Your task to perform on an android device: turn off notifications settings in the gmail app Image 0: 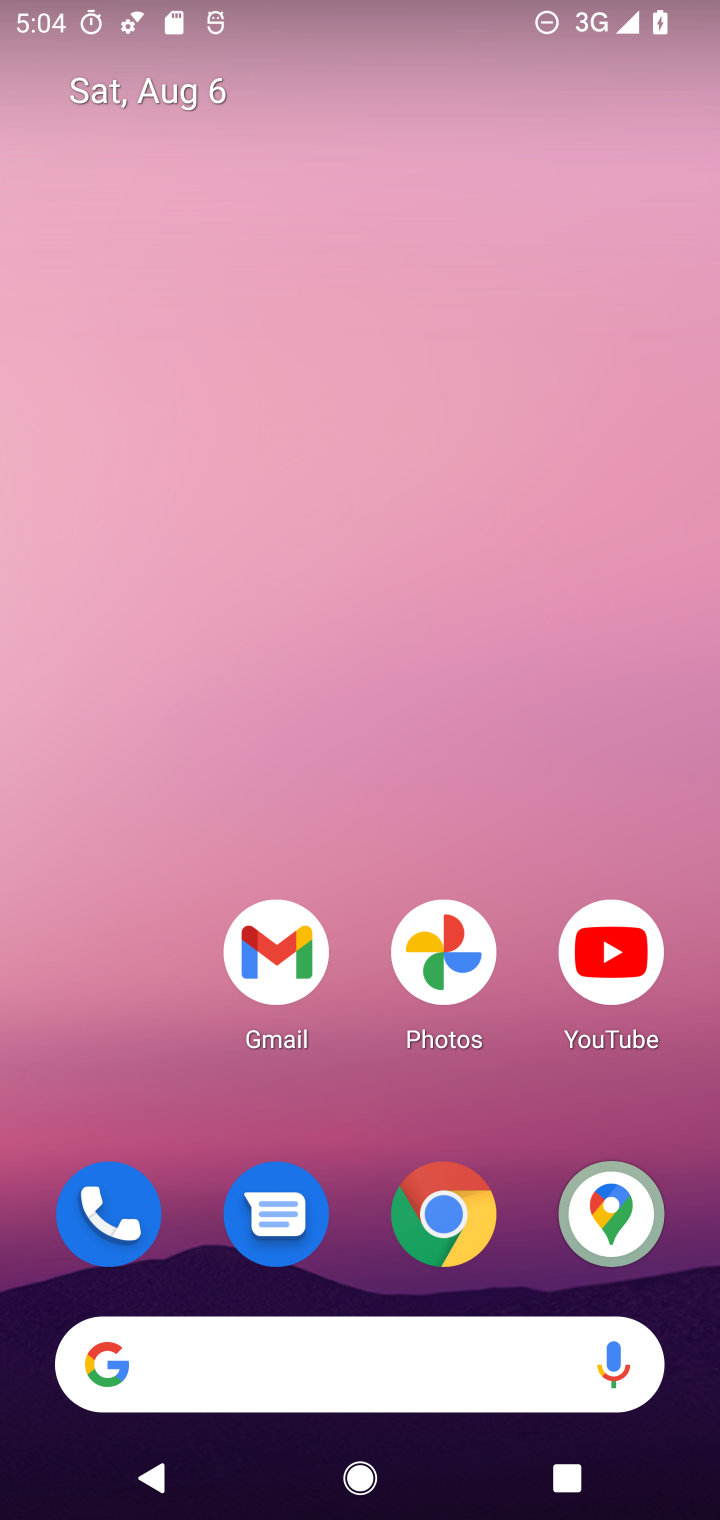
Step 0: click (249, 941)
Your task to perform on an android device: turn off notifications settings in the gmail app Image 1: 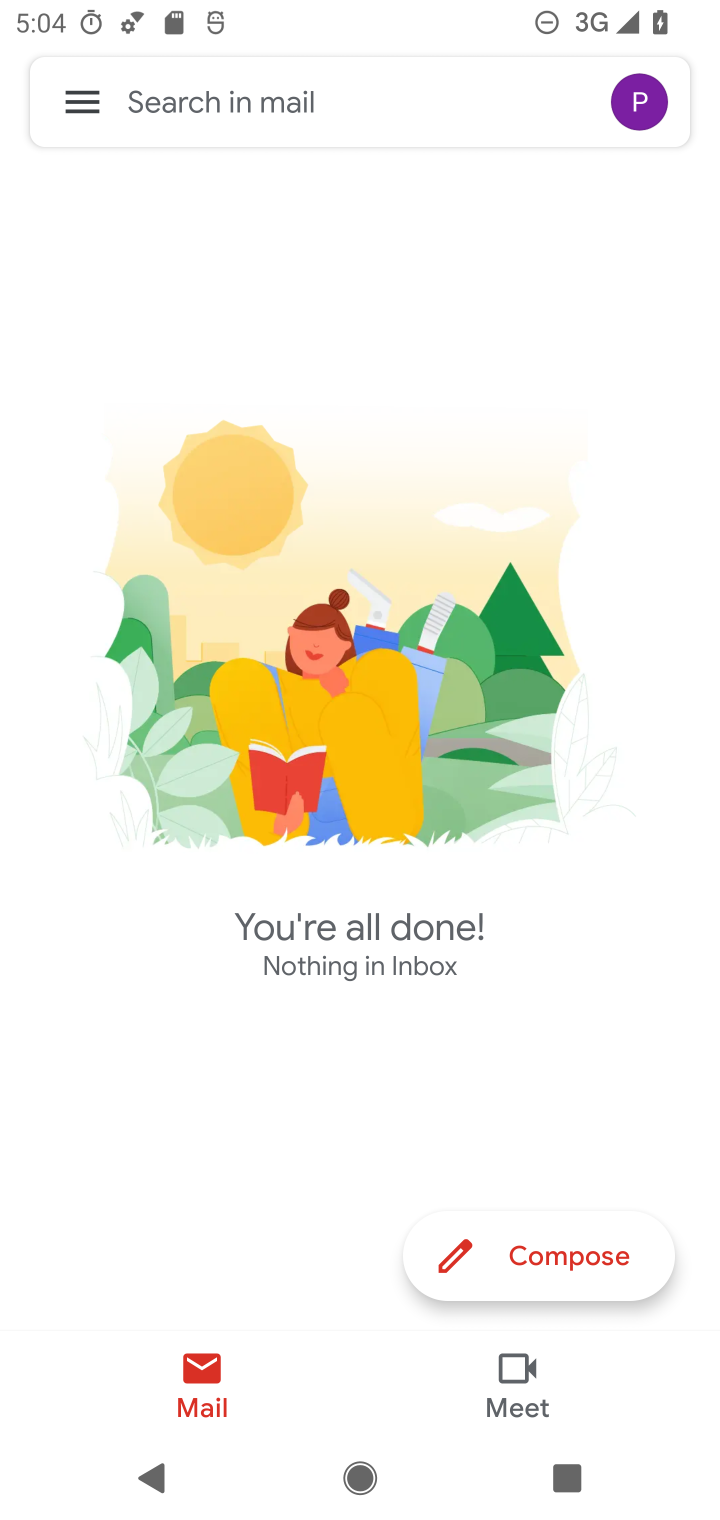
Step 1: click (72, 99)
Your task to perform on an android device: turn off notifications settings in the gmail app Image 2: 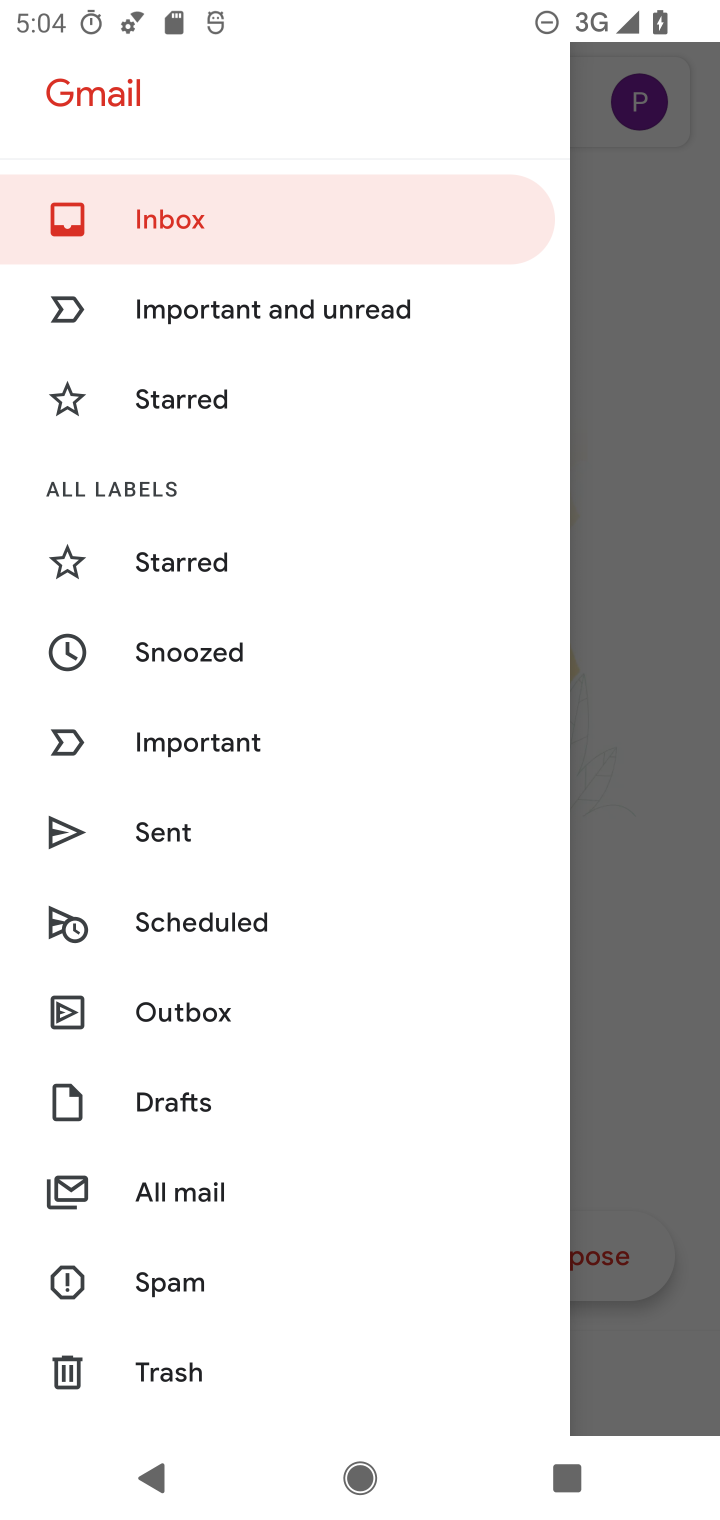
Step 2: drag from (240, 1018) to (246, 328)
Your task to perform on an android device: turn off notifications settings in the gmail app Image 3: 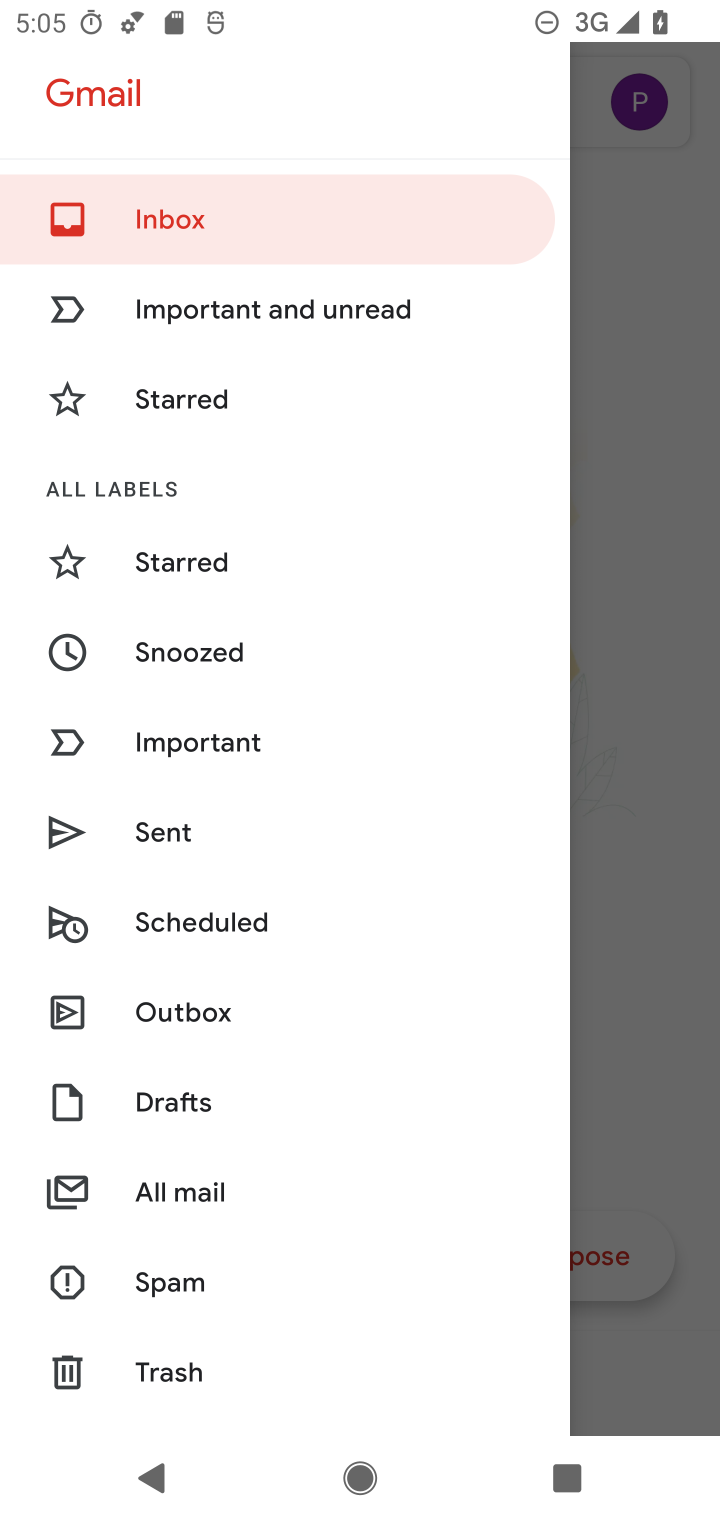
Step 3: drag from (194, 1279) to (229, 730)
Your task to perform on an android device: turn off notifications settings in the gmail app Image 4: 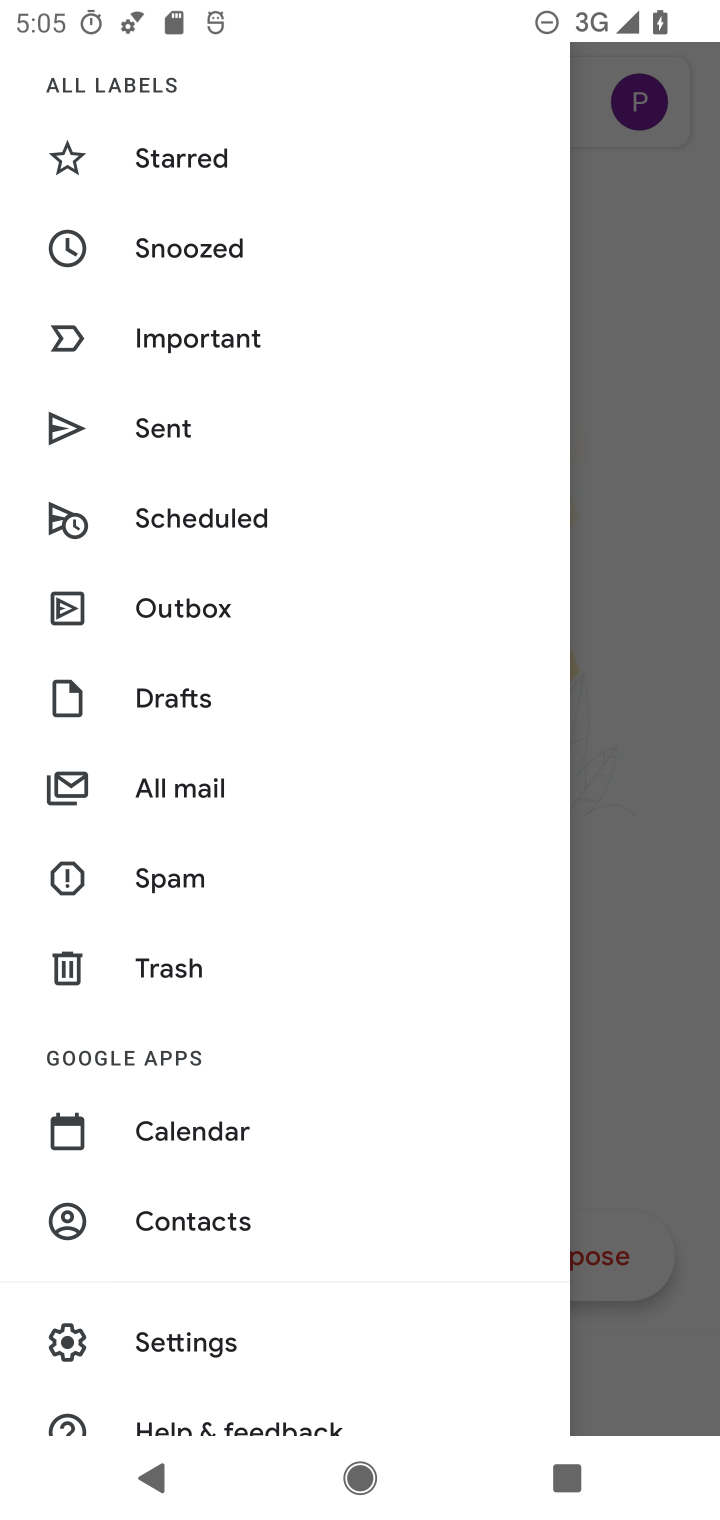
Step 4: click (162, 1356)
Your task to perform on an android device: turn off notifications settings in the gmail app Image 5: 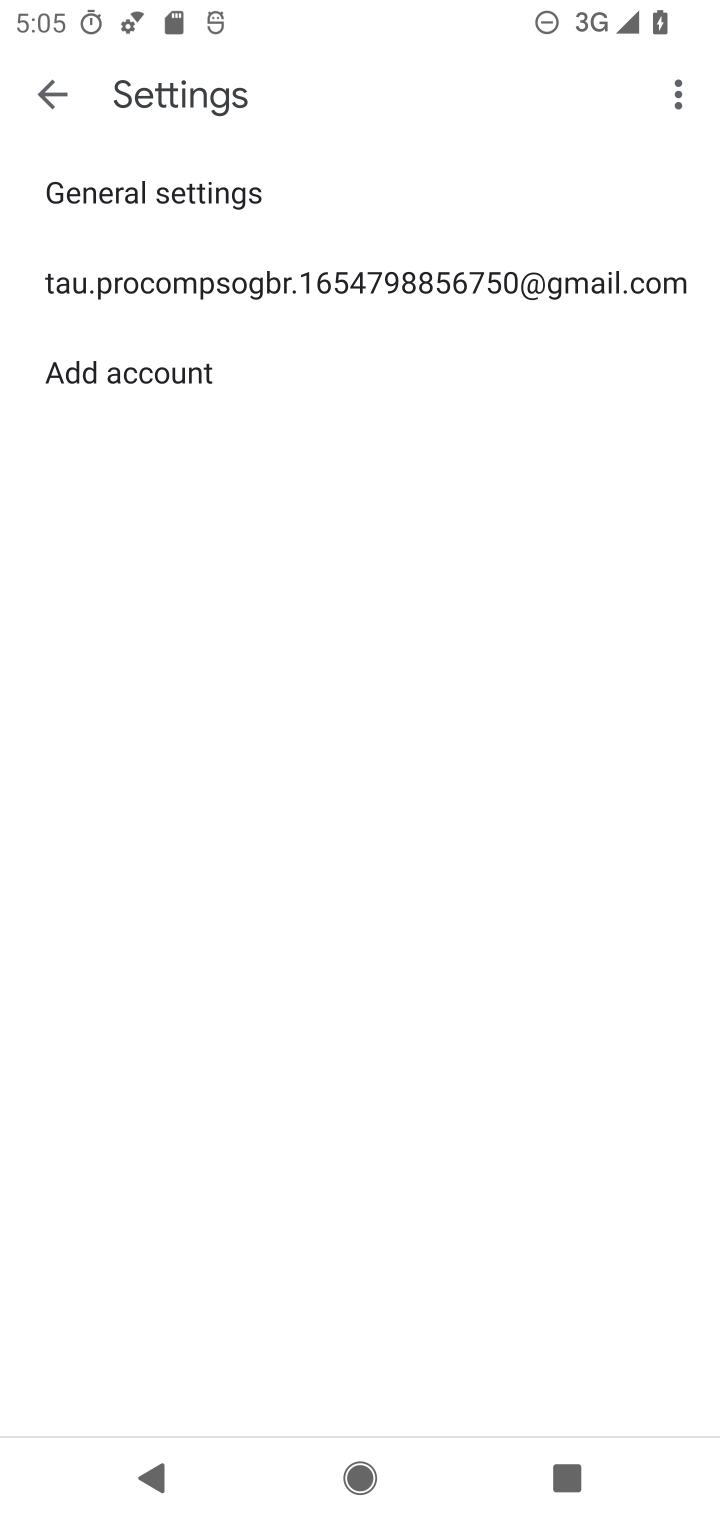
Step 5: click (223, 294)
Your task to perform on an android device: turn off notifications settings in the gmail app Image 6: 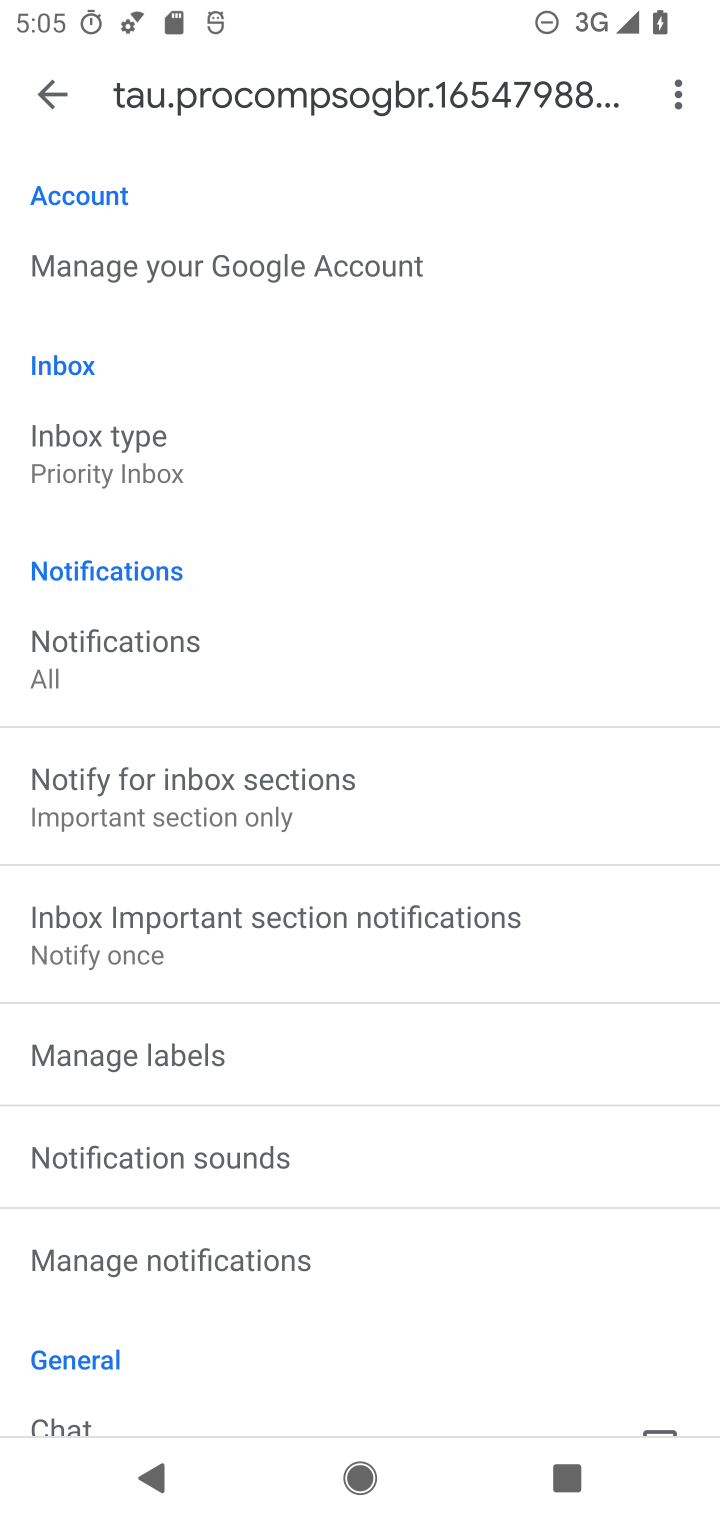
Step 6: click (173, 1268)
Your task to perform on an android device: turn off notifications settings in the gmail app Image 7: 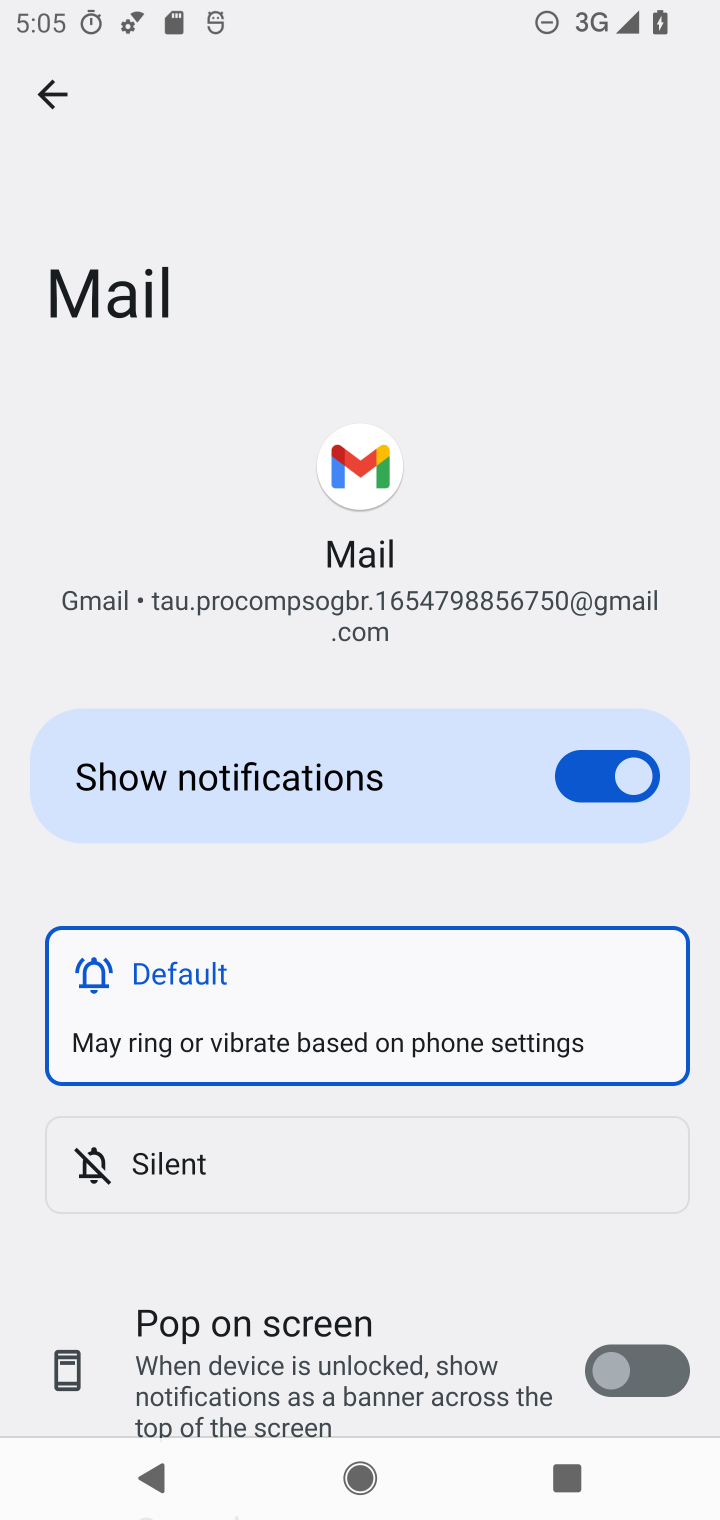
Step 7: click (577, 779)
Your task to perform on an android device: turn off notifications settings in the gmail app Image 8: 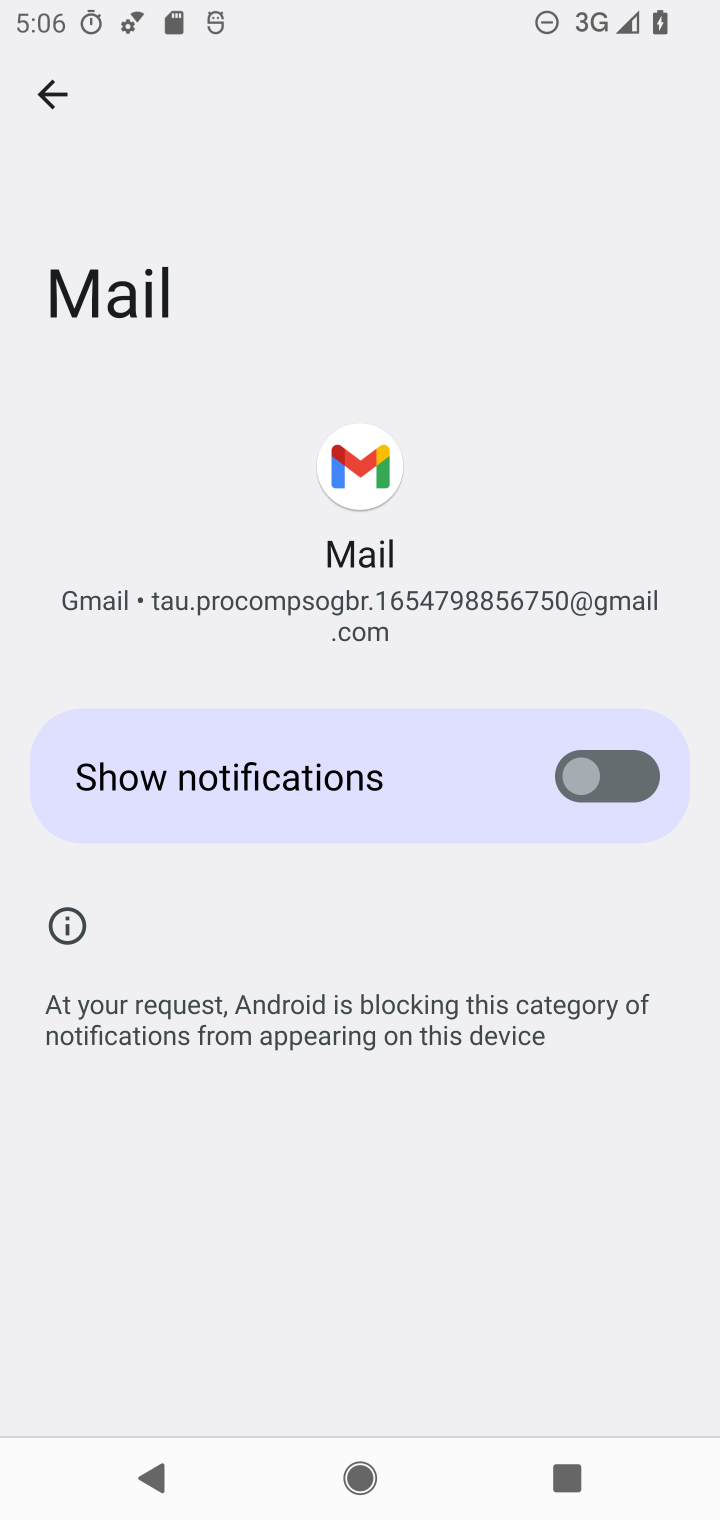
Step 8: task complete